Your task to perform on an android device: refresh tabs in the chrome app Image 0: 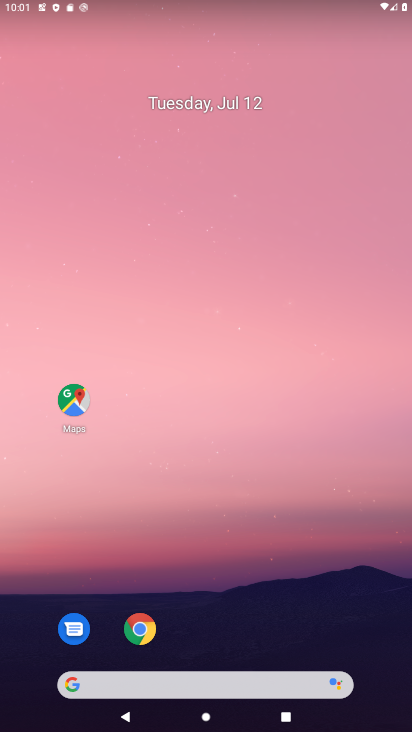
Step 0: drag from (304, 638) to (310, 7)
Your task to perform on an android device: refresh tabs in the chrome app Image 1: 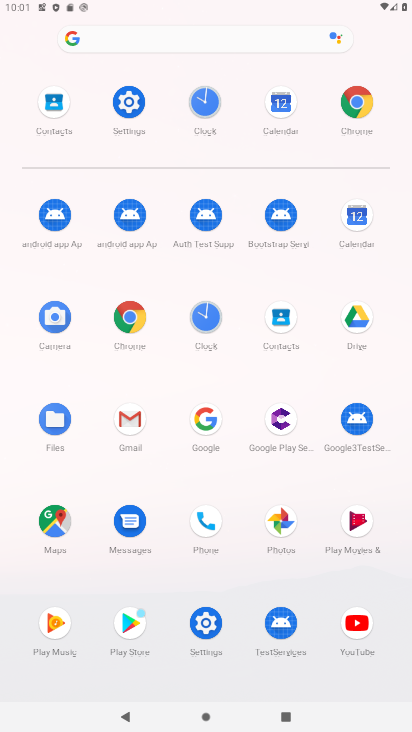
Step 1: click (129, 320)
Your task to perform on an android device: refresh tabs in the chrome app Image 2: 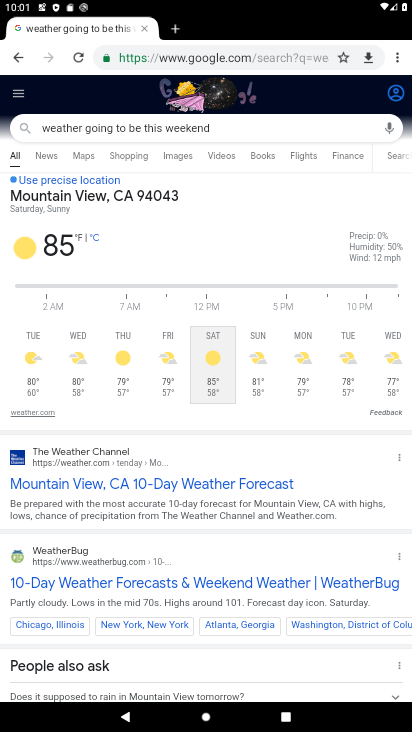
Step 2: drag from (395, 56) to (80, 52)
Your task to perform on an android device: refresh tabs in the chrome app Image 3: 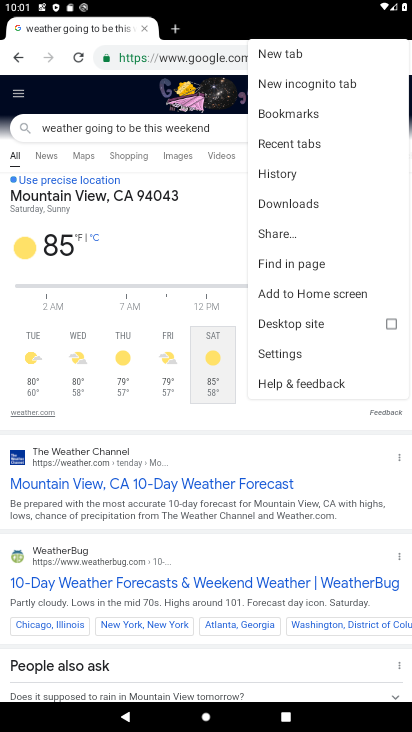
Step 3: click (75, 53)
Your task to perform on an android device: refresh tabs in the chrome app Image 4: 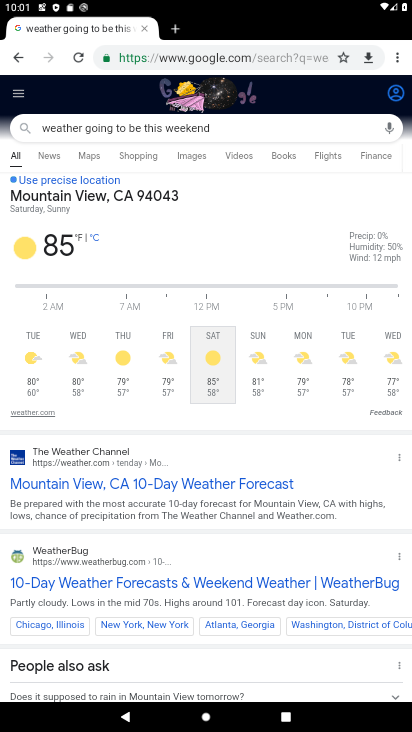
Step 4: task complete